Your task to perform on an android device: Open Yahoo.com Image 0: 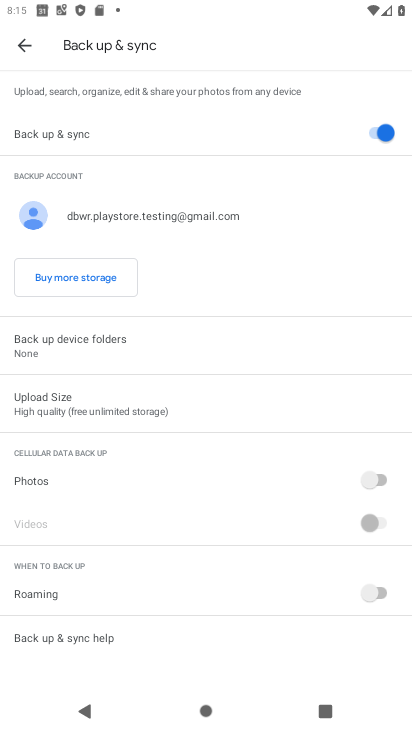
Step 0: press home button
Your task to perform on an android device: Open Yahoo.com Image 1: 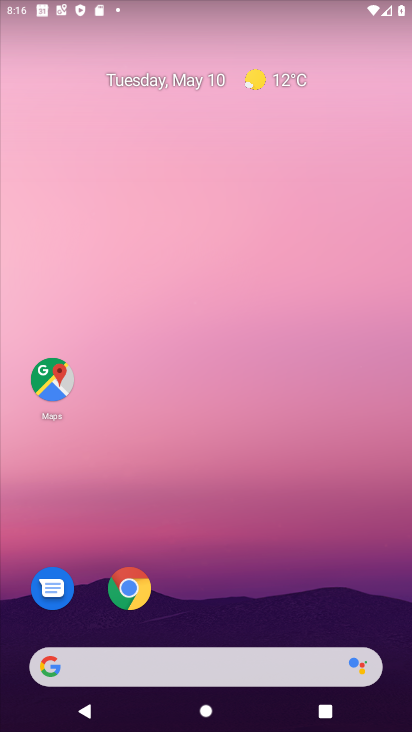
Step 1: click (137, 591)
Your task to perform on an android device: Open Yahoo.com Image 2: 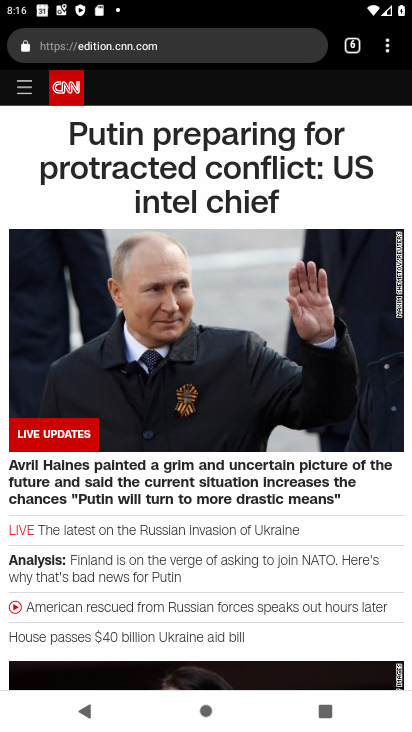
Step 2: click (344, 52)
Your task to perform on an android device: Open Yahoo.com Image 3: 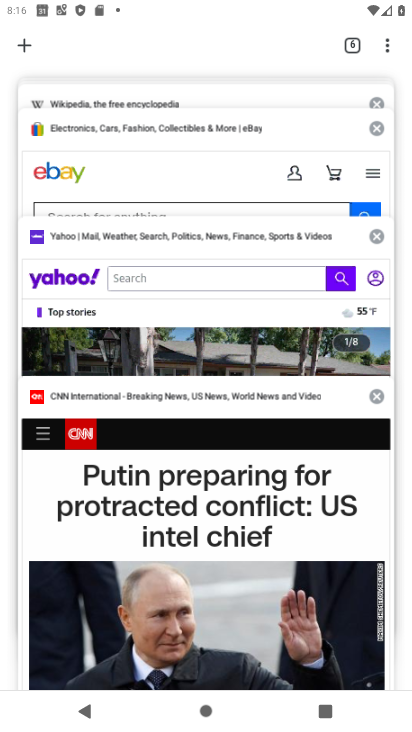
Step 3: click (110, 338)
Your task to perform on an android device: Open Yahoo.com Image 4: 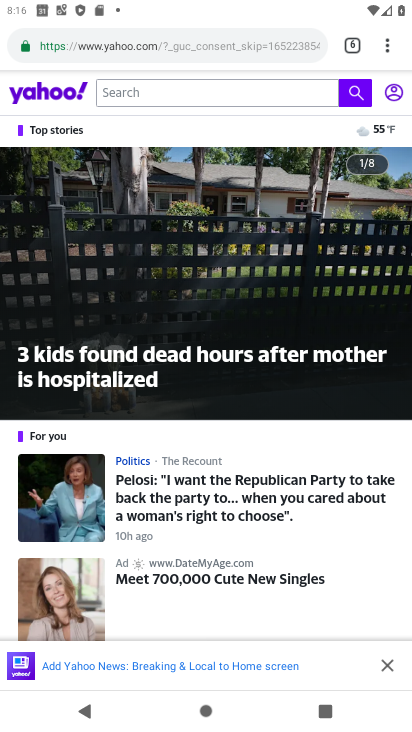
Step 4: task complete